Your task to perform on an android device: Open Reddit.com Image 0: 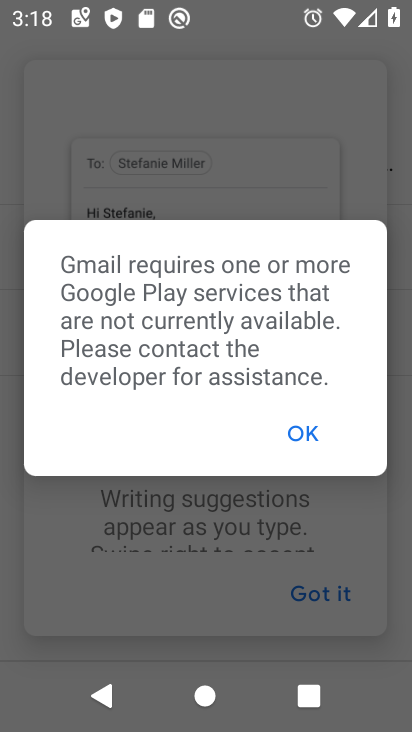
Step 0: press home button
Your task to perform on an android device: Open Reddit.com Image 1: 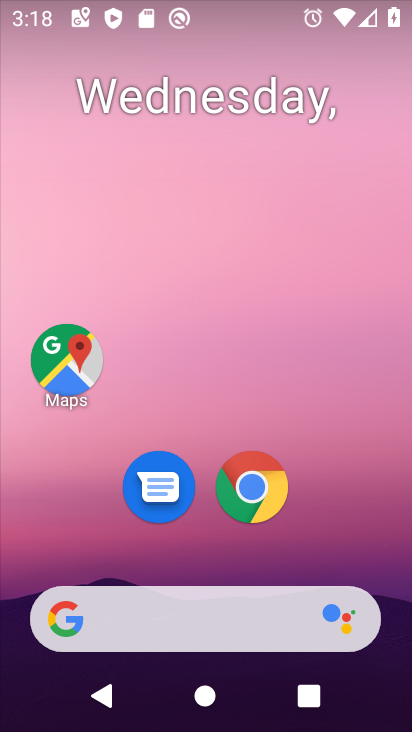
Step 1: drag from (374, 539) to (374, 182)
Your task to perform on an android device: Open Reddit.com Image 2: 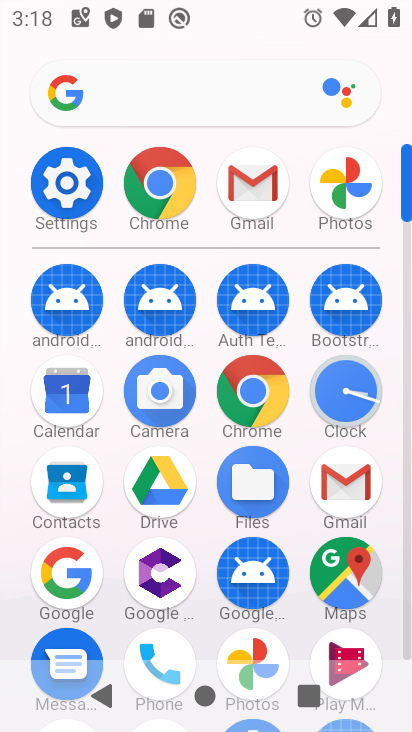
Step 2: click (262, 380)
Your task to perform on an android device: Open Reddit.com Image 3: 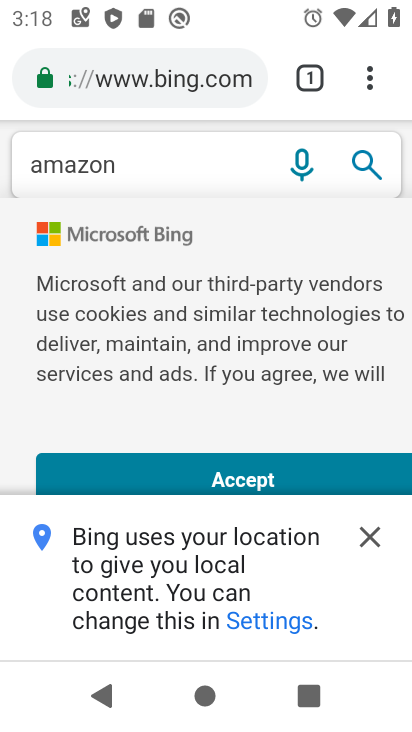
Step 3: click (183, 83)
Your task to perform on an android device: Open Reddit.com Image 4: 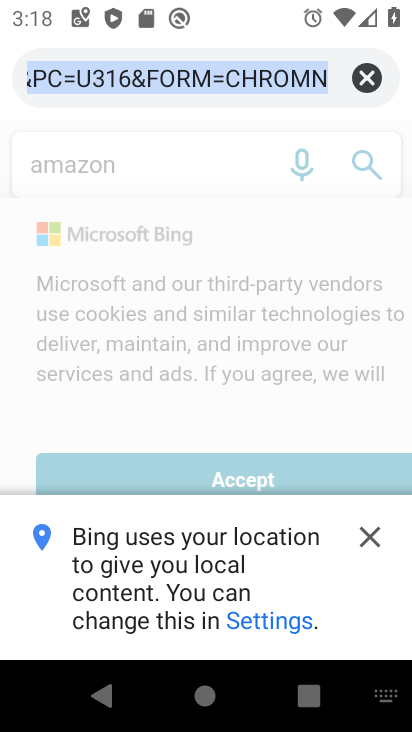
Step 4: click (357, 76)
Your task to perform on an android device: Open Reddit.com Image 5: 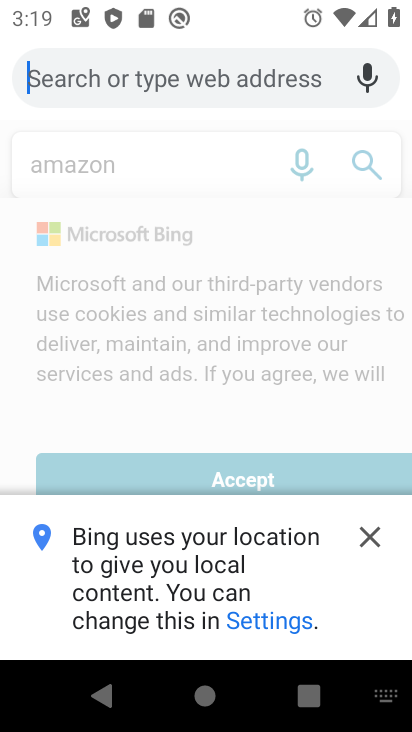
Step 5: type "reddit.com"
Your task to perform on an android device: Open Reddit.com Image 6: 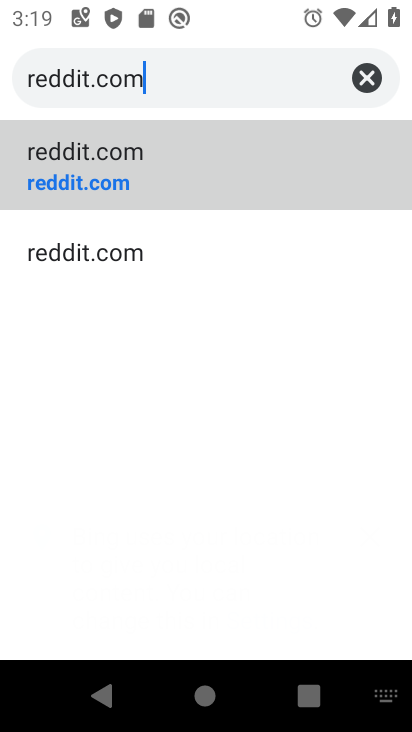
Step 6: click (140, 162)
Your task to perform on an android device: Open Reddit.com Image 7: 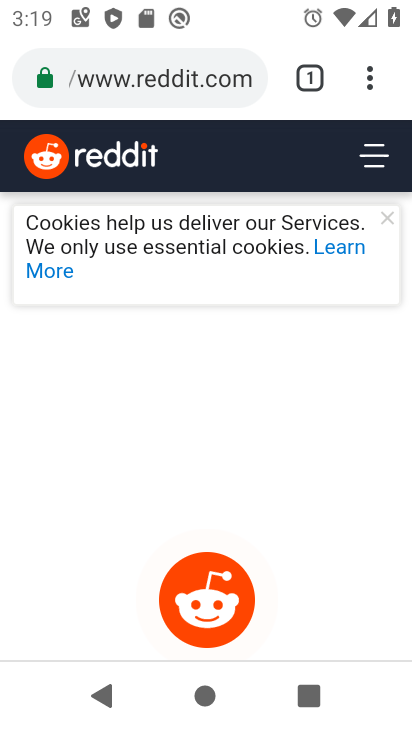
Step 7: task complete